Your task to perform on an android device: turn pop-ups on in chrome Image 0: 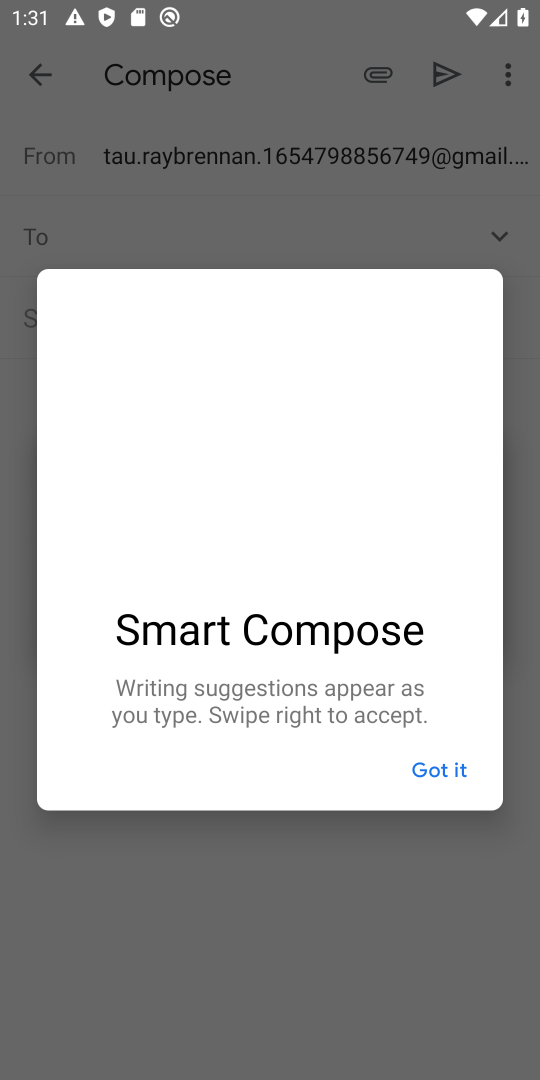
Step 0: press home button
Your task to perform on an android device: turn pop-ups on in chrome Image 1: 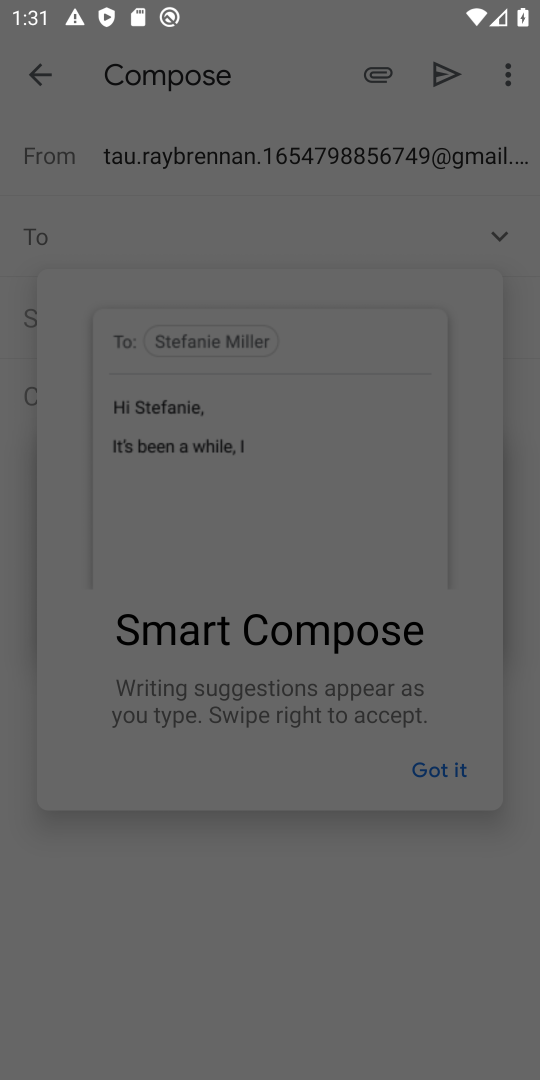
Step 1: press home button
Your task to perform on an android device: turn pop-ups on in chrome Image 2: 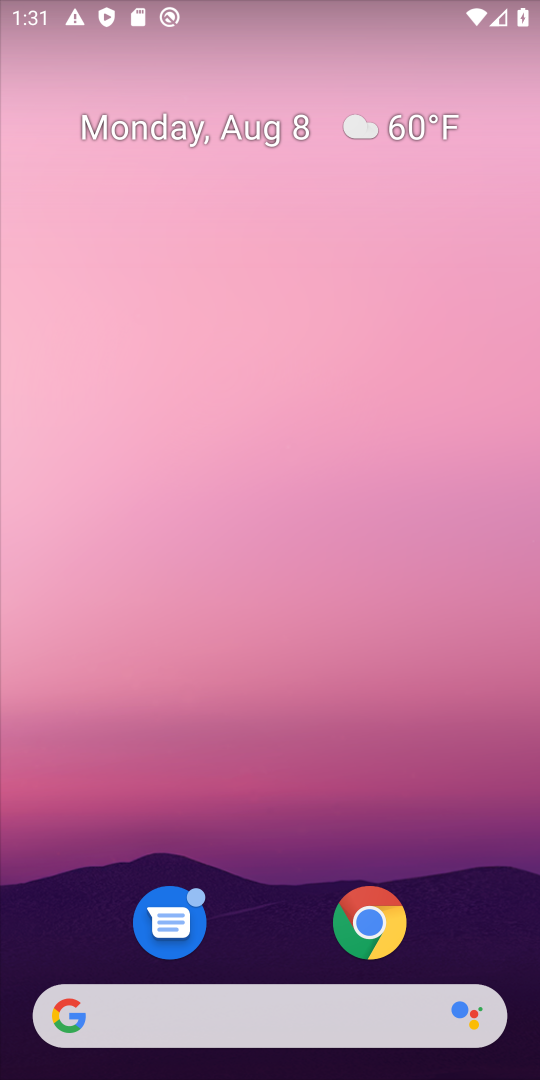
Step 2: click (371, 920)
Your task to perform on an android device: turn pop-ups on in chrome Image 3: 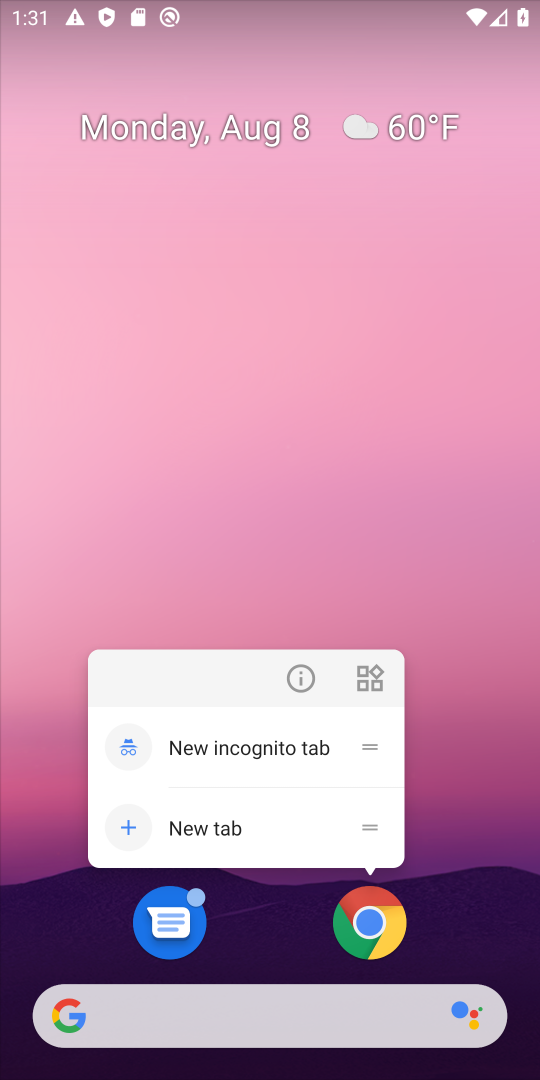
Step 3: click (369, 920)
Your task to perform on an android device: turn pop-ups on in chrome Image 4: 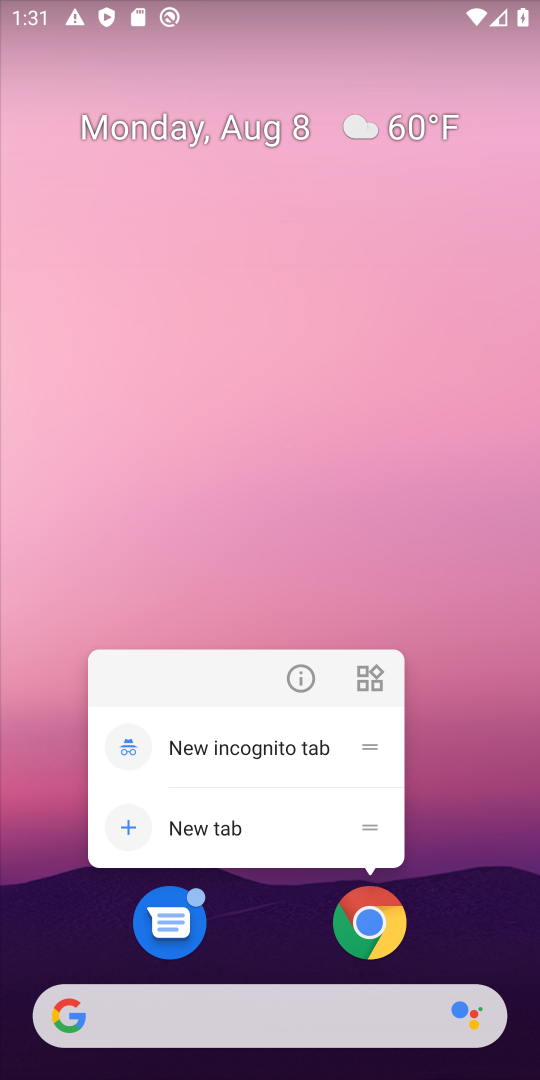
Step 4: click (457, 863)
Your task to perform on an android device: turn pop-ups on in chrome Image 5: 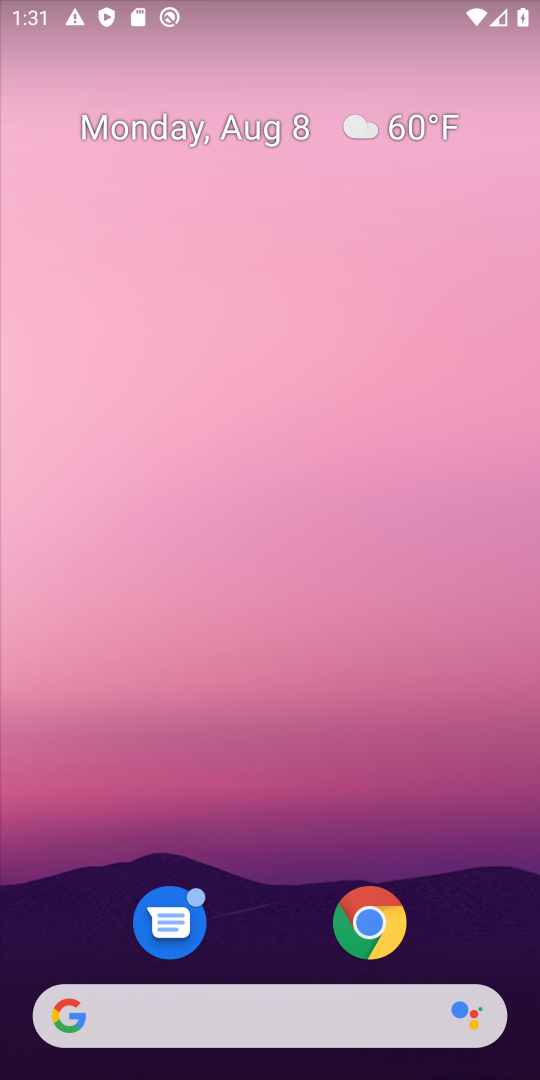
Step 5: drag from (457, 863) to (411, 14)
Your task to perform on an android device: turn pop-ups on in chrome Image 6: 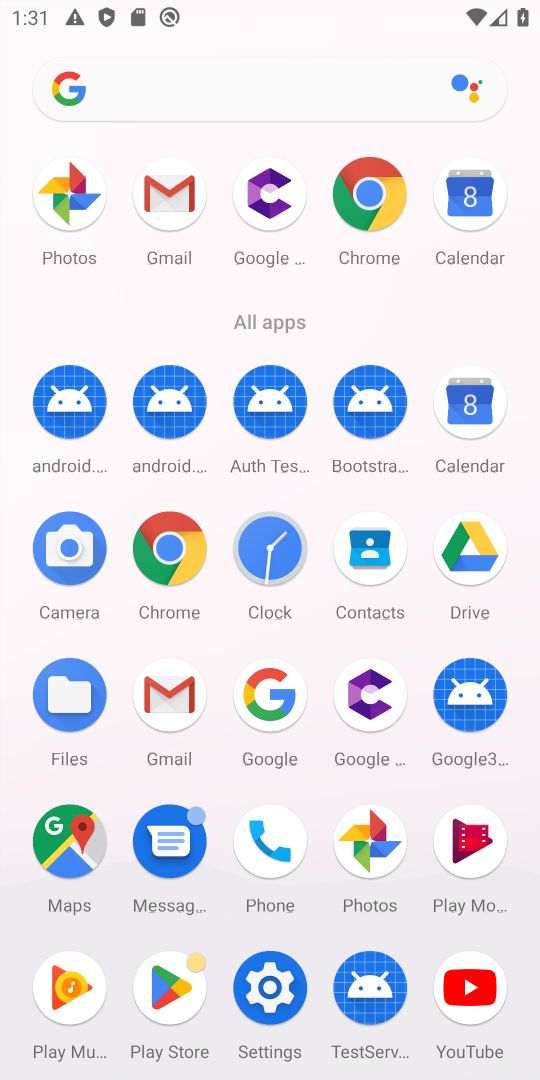
Step 6: click (159, 552)
Your task to perform on an android device: turn pop-ups on in chrome Image 7: 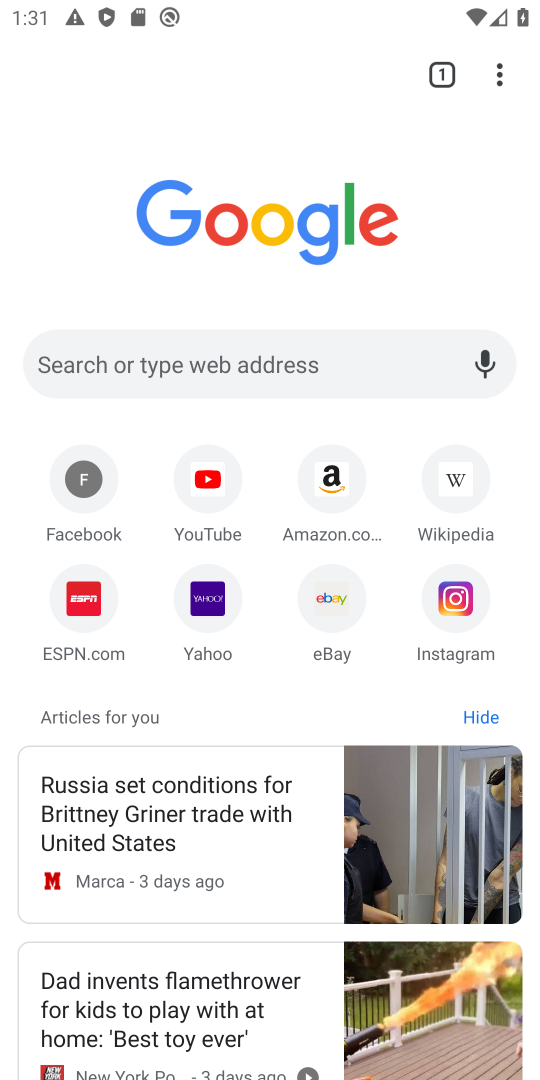
Step 7: drag from (514, 66) to (311, 722)
Your task to perform on an android device: turn pop-ups on in chrome Image 8: 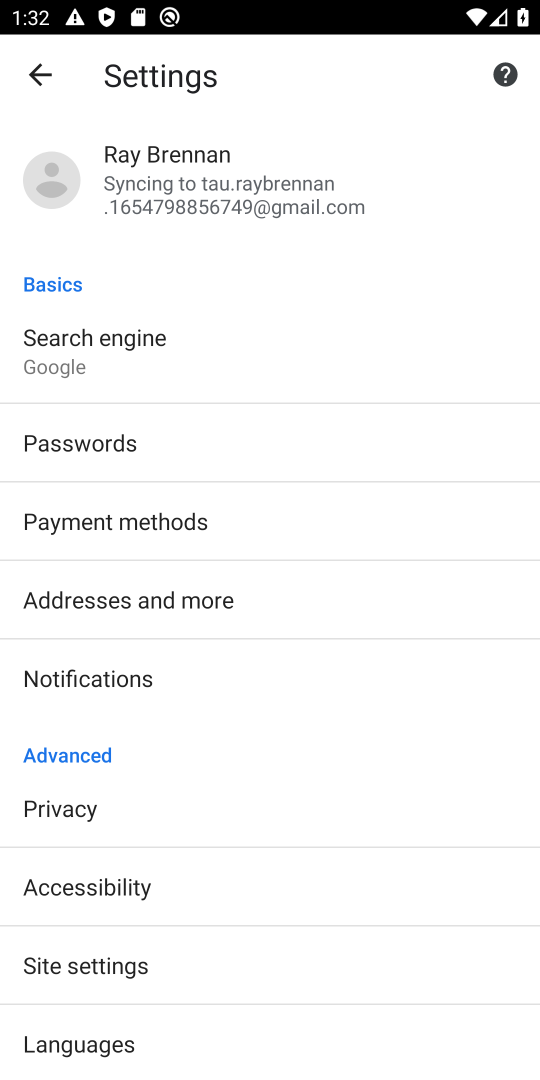
Step 8: click (127, 967)
Your task to perform on an android device: turn pop-ups on in chrome Image 9: 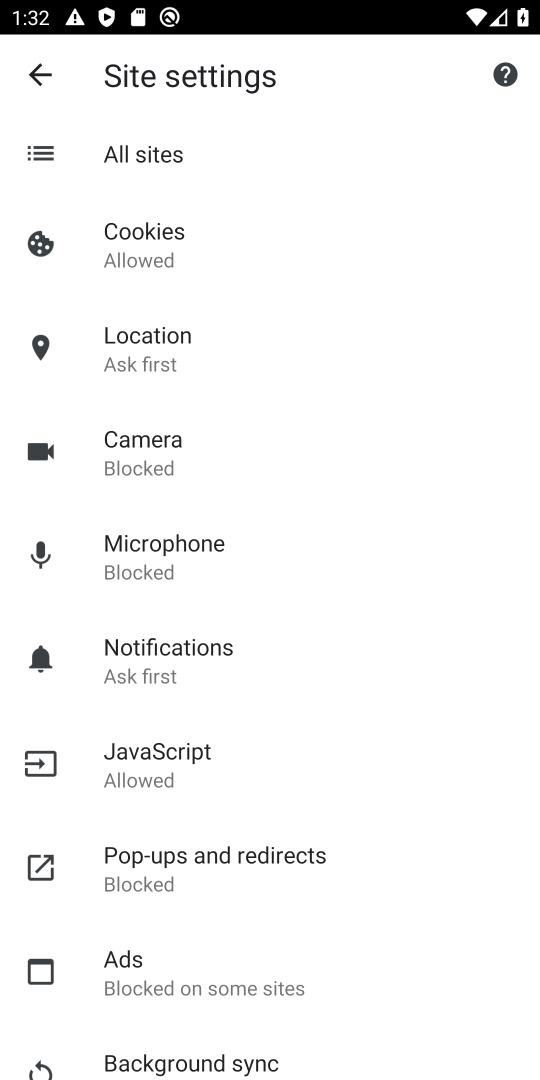
Step 9: click (162, 845)
Your task to perform on an android device: turn pop-ups on in chrome Image 10: 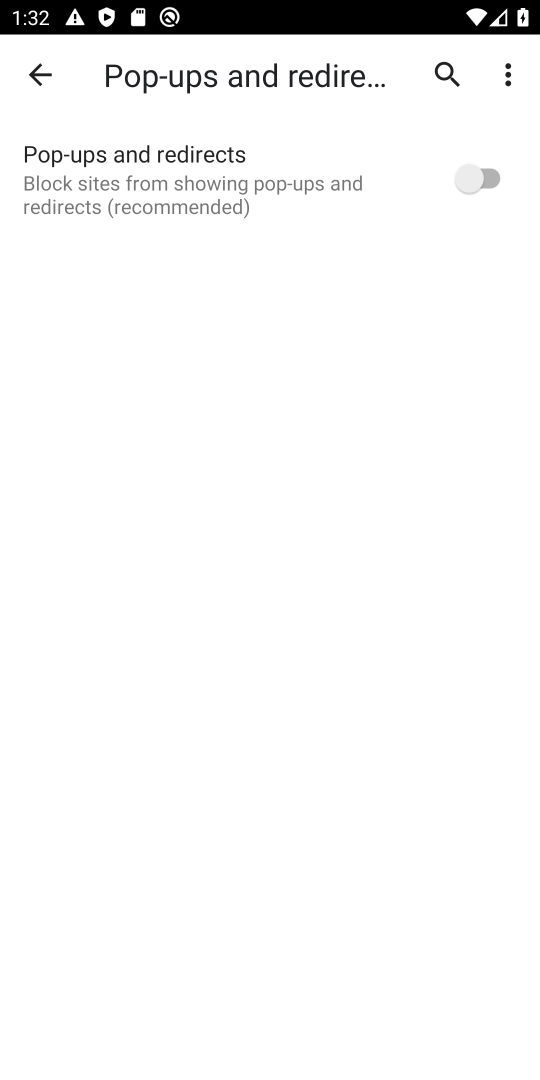
Step 10: click (442, 175)
Your task to perform on an android device: turn pop-ups on in chrome Image 11: 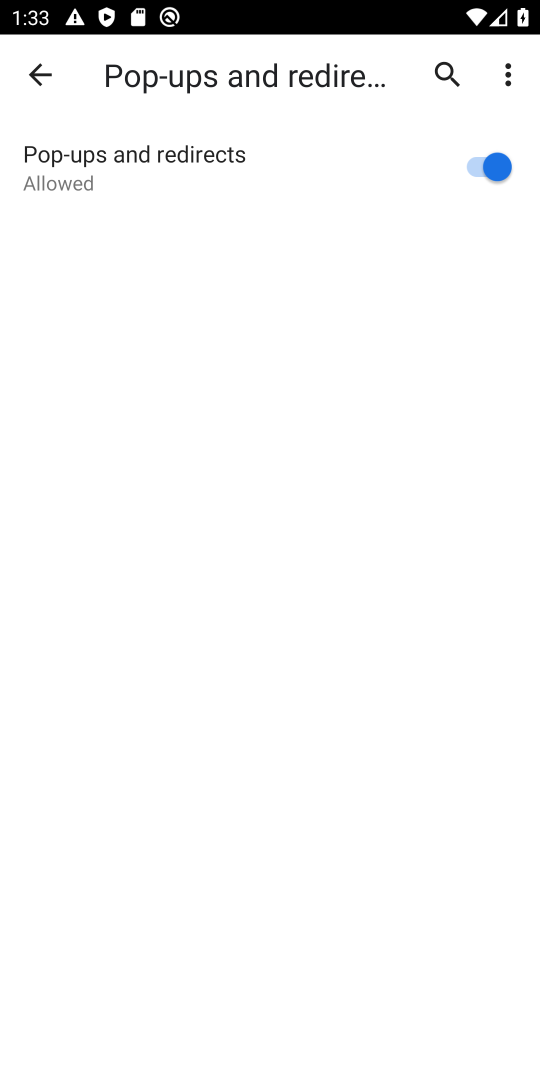
Step 11: task complete